Your task to perform on an android device: remove spam from my inbox in the gmail app Image 0: 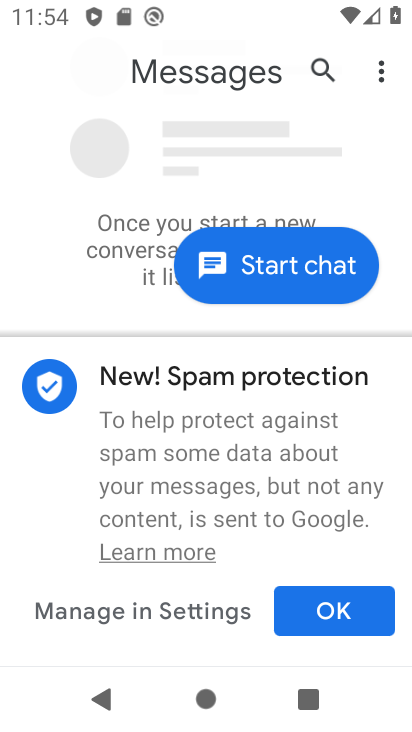
Step 0: press home button
Your task to perform on an android device: remove spam from my inbox in the gmail app Image 1: 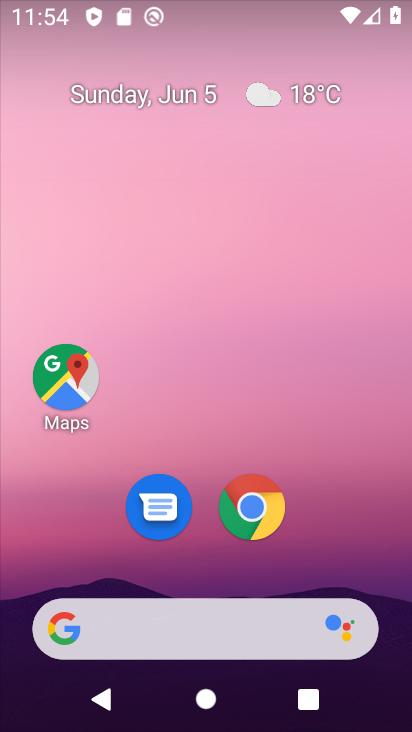
Step 1: drag from (237, 559) to (228, 0)
Your task to perform on an android device: remove spam from my inbox in the gmail app Image 2: 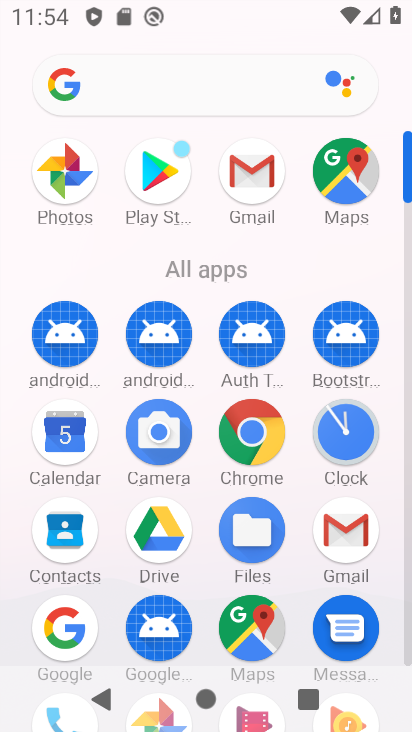
Step 2: click (354, 534)
Your task to perform on an android device: remove spam from my inbox in the gmail app Image 3: 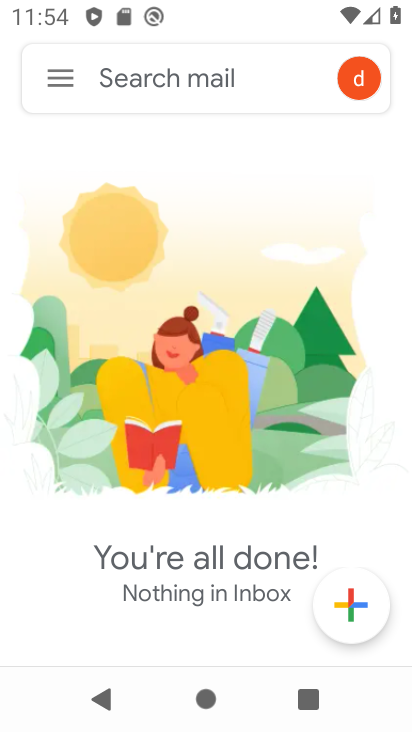
Step 3: click (63, 76)
Your task to perform on an android device: remove spam from my inbox in the gmail app Image 4: 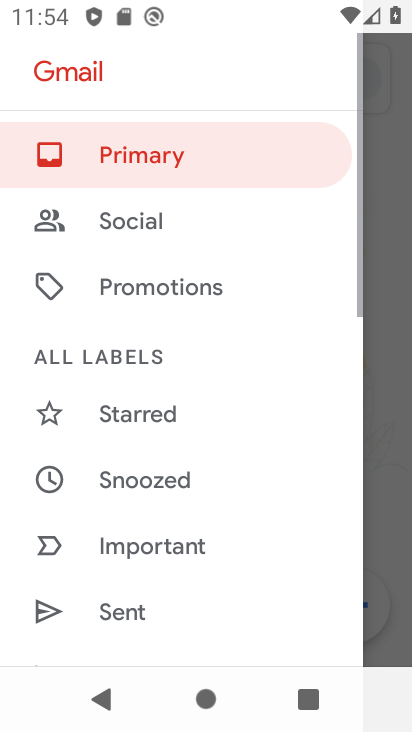
Step 4: drag from (157, 600) to (193, 215)
Your task to perform on an android device: remove spam from my inbox in the gmail app Image 5: 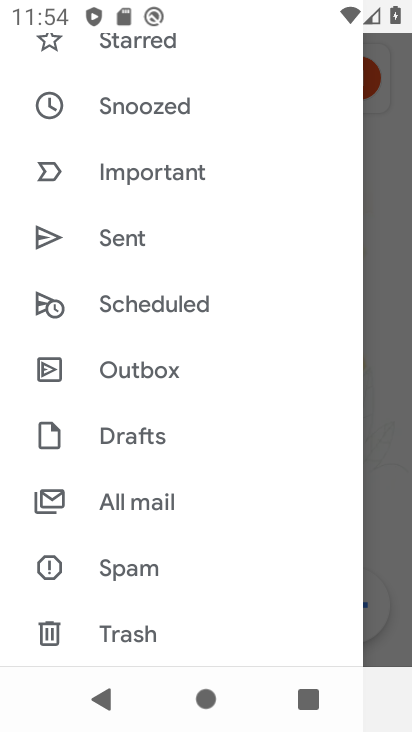
Step 5: click (142, 575)
Your task to perform on an android device: remove spam from my inbox in the gmail app Image 6: 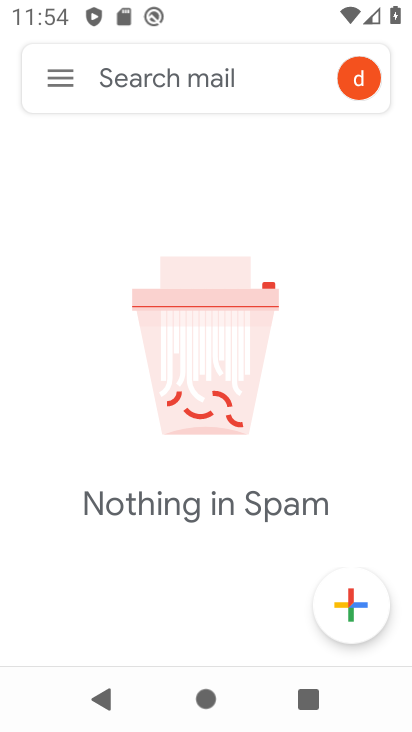
Step 6: task complete